Your task to perform on an android device: change the clock display to show seconds Image 0: 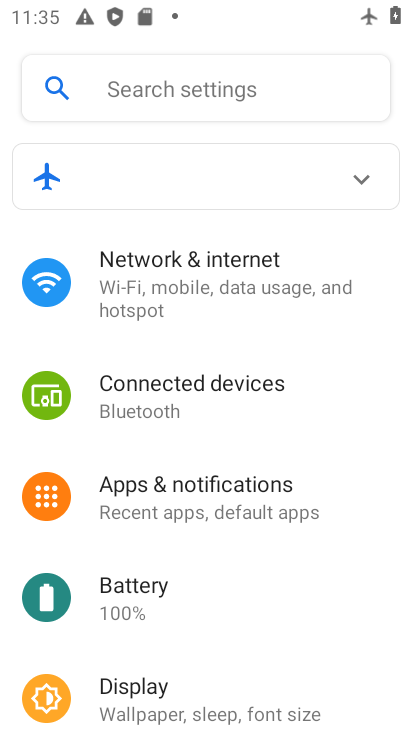
Step 0: press home button
Your task to perform on an android device: change the clock display to show seconds Image 1: 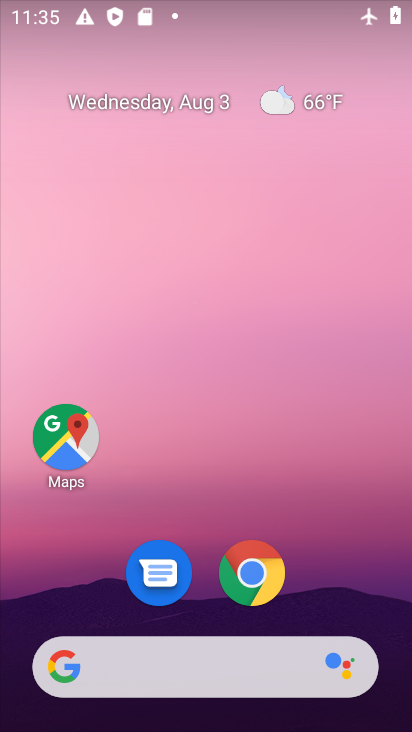
Step 1: drag from (355, 581) to (304, 123)
Your task to perform on an android device: change the clock display to show seconds Image 2: 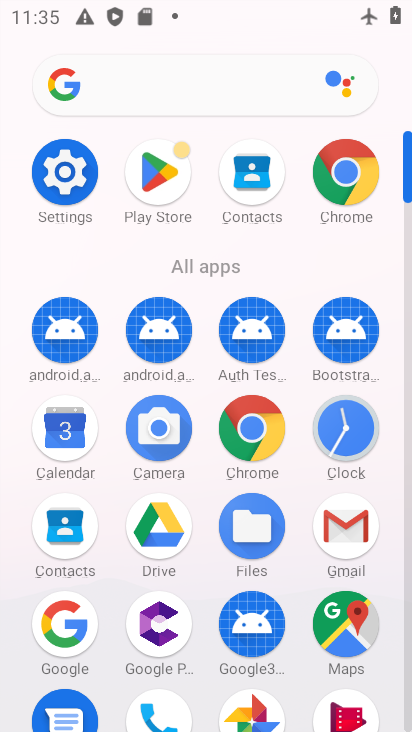
Step 2: click (358, 442)
Your task to perform on an android device: change the clock display to show seconds Image 3: 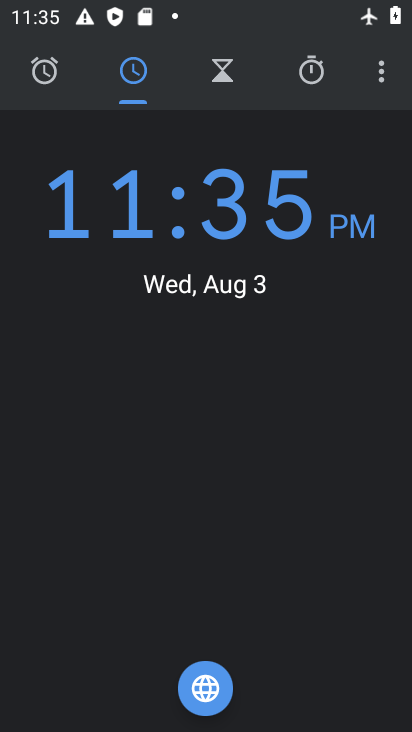
Step 3: click (382, 71)
Your task to perform on an android device: change the clock display to show seconds Image 4: 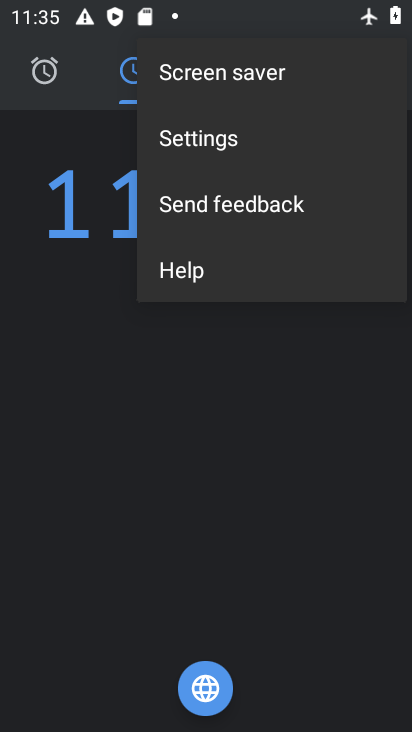
Step 4: click (273, 146)
Your task to perform on an android device: change the clock display to show seconds Image 5: 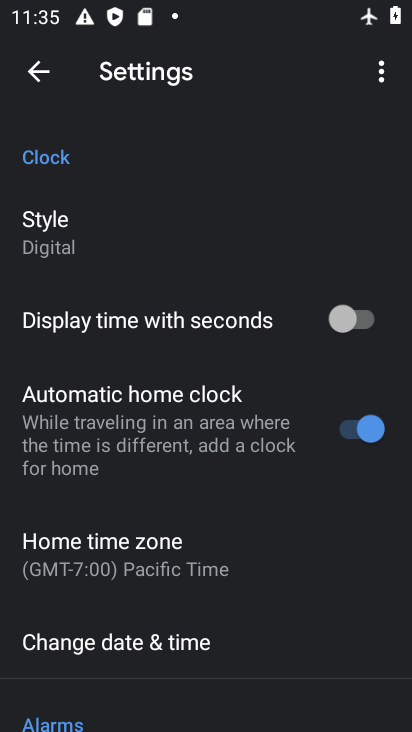
Step 5: click (362, 324)
Your task to perform on an android device: change the clock display to show seconds Image 6: 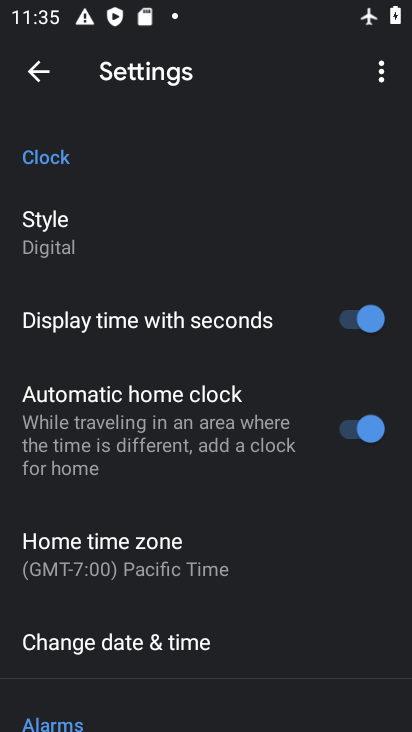
Step 6: task complete